Your task to perform on an android device: star an email in the gmail app Image 0: 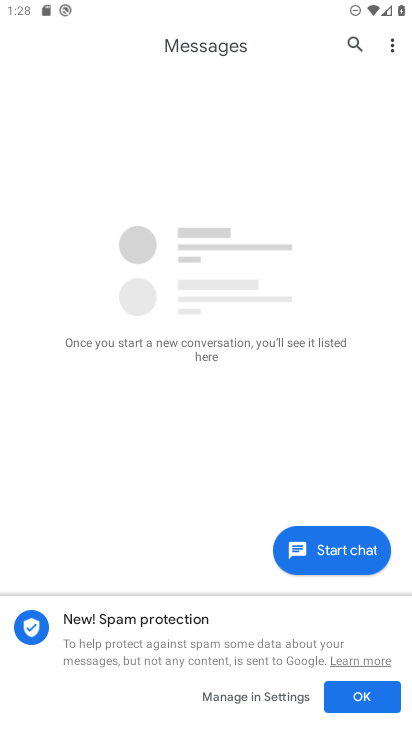
Step 0: press home button
Your task to perform on an android device: star an email in the gmail app Image 1: 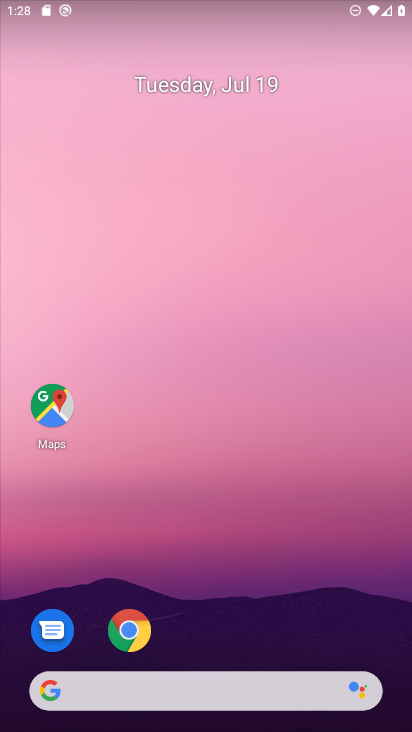
Step 1: drag from (191, 690) to (294, 258)
Your task to perform on an android device: star an email in the gmail app Image 2: 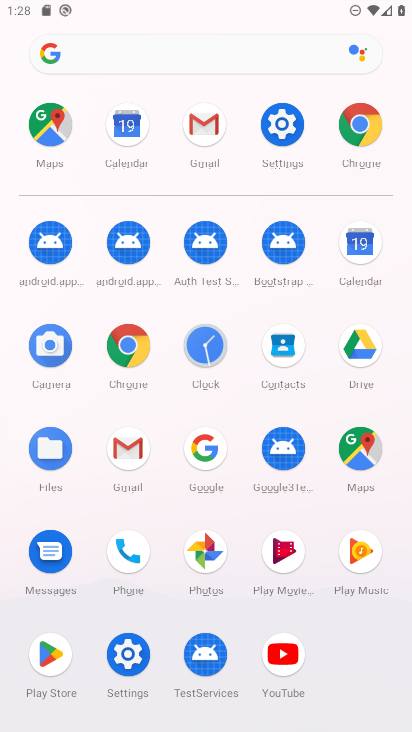
Step 2: click (128, 453)
Your task to perform on an android device: star an email in the gmail app Image 3: 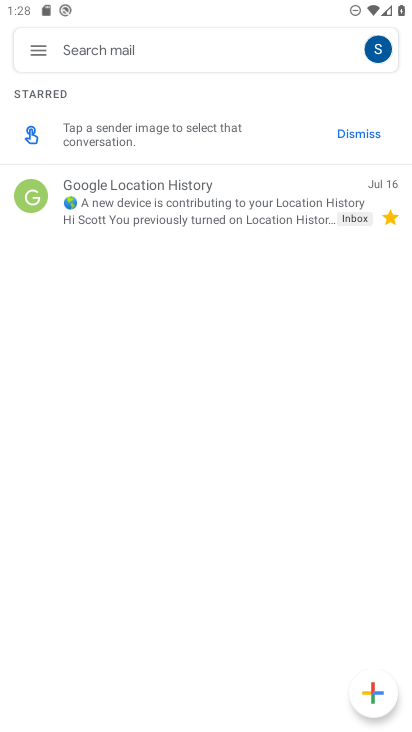
Step 3: click (39, 45)
Your task to perform on an android device: star an email in the gmail app Image 4: 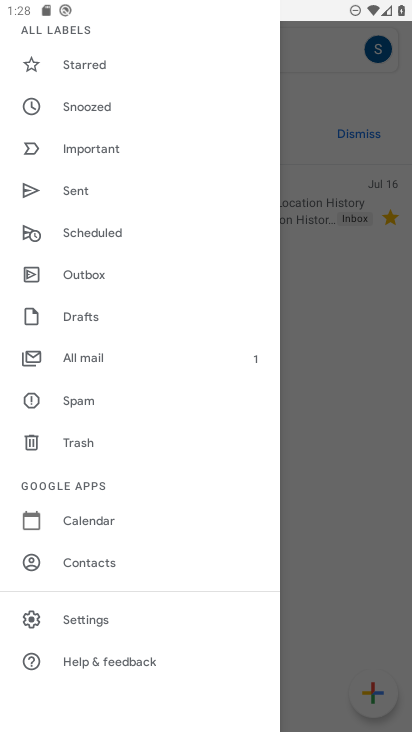
Step 4: click (101, 360)
Your task to perform on an android device: star an email in the gmail app Image 5: 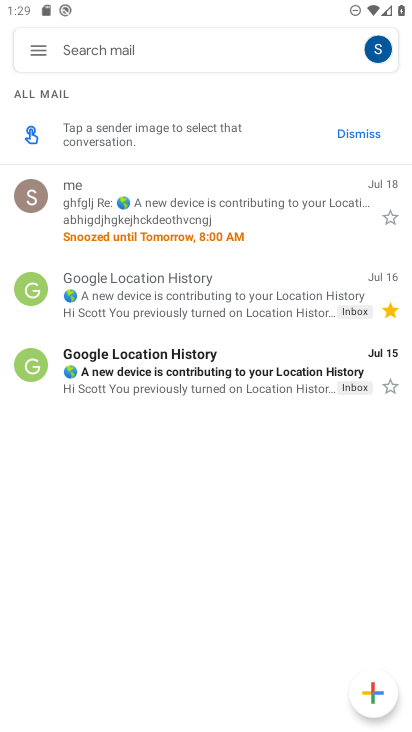
Step 5: click (36, 193)
Your task to perform on an android device: star an email in the gmail app Image 6: 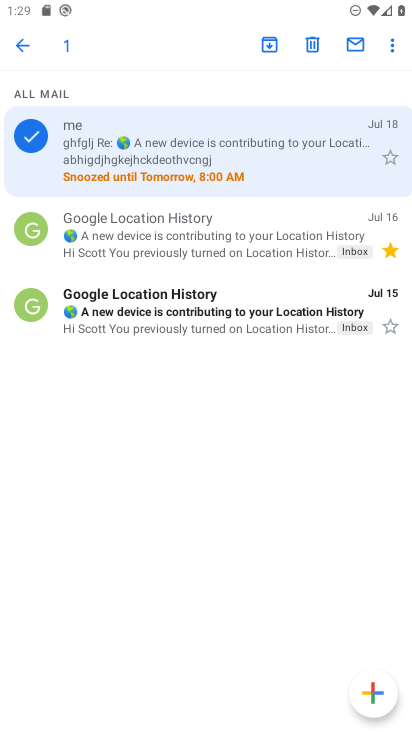
Step 6: click (388, 42)
Your task to perform on an android device: star an email in the gmail app Image 7: 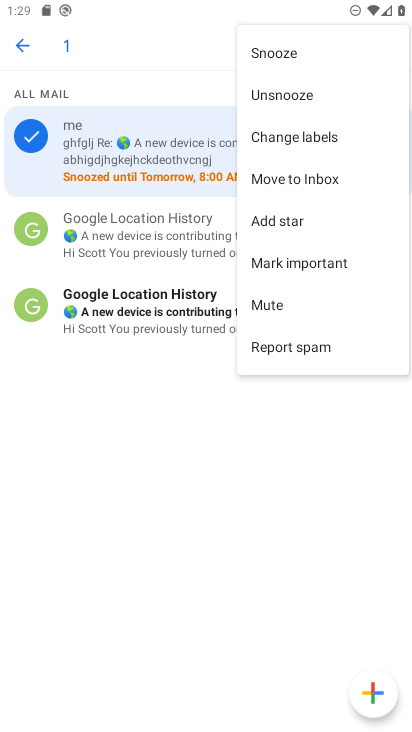
Step 7: click (277, 226)
Your task to perform on an android device: star an email in the gmail app Image 8: 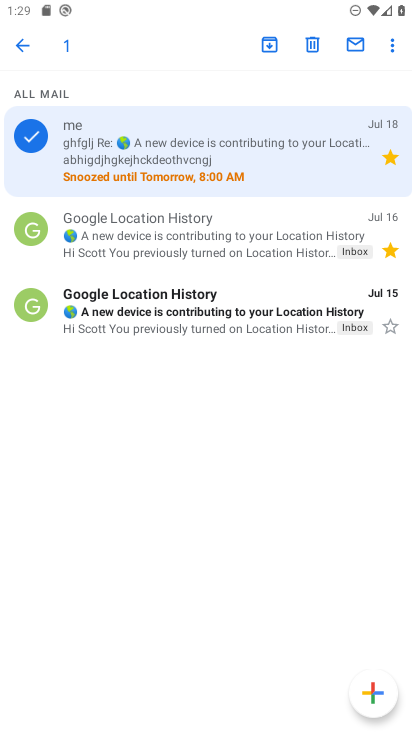
Step 8: task complete